Your task to perform on an android device: Open notification settings Image 0: 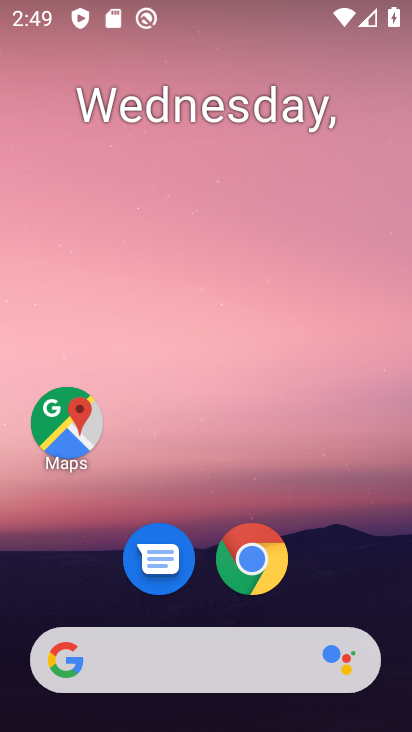
Step 0: drag from (187, 613) to (236, 9)
Your task to perform on an android device: Open notification settings Image 1: 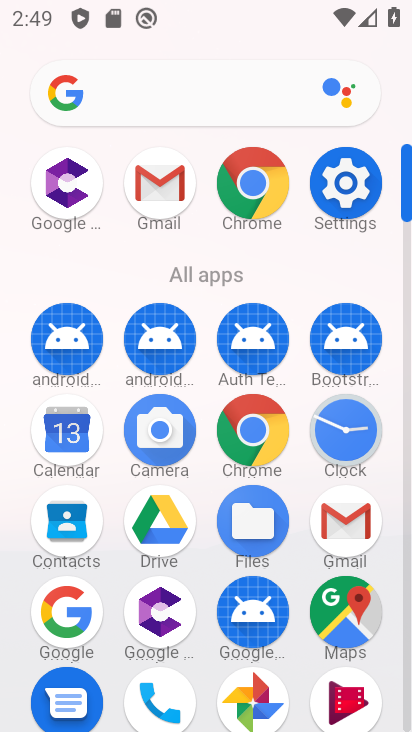
Step 1: click (325, 175)
Your task to perform on an android device: Open notification settings Image 2: 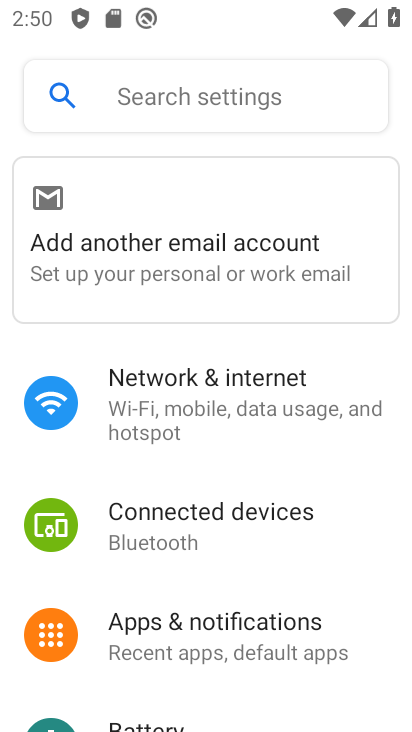
Step 2: click (110, 653)
Your task to perform on an android device: Open notification settings Image 3: 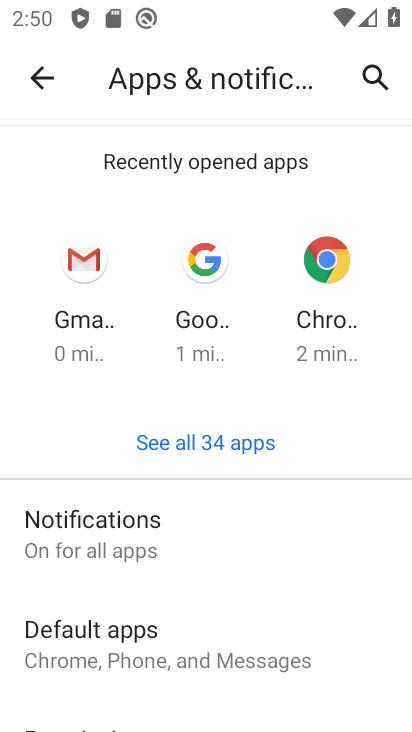
Step 3: task complete